Your task to perform on an android device: remove spam from my inbox in the gmail app Image 0: 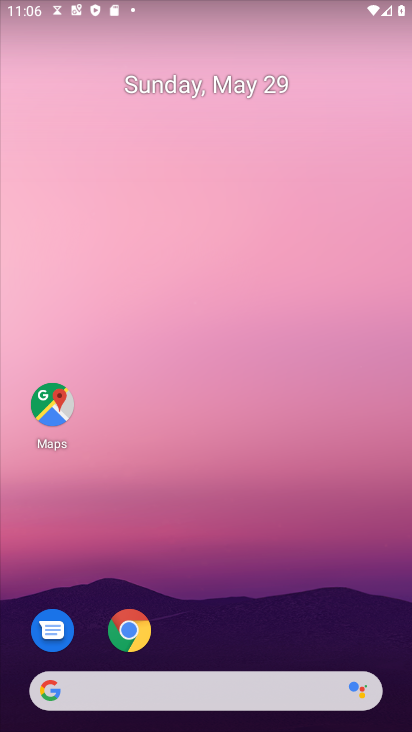
Step 0: drag from (282, 577) to (329, 142)
Your task to perform on an android device: remove spam from my inbox in the gmail app Image 1: 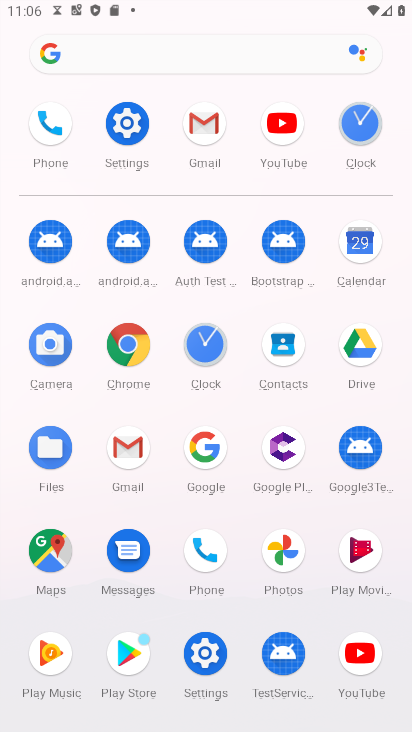
Step 1: click (200, 123)
Your task to perform on an android device: remove spam from my inbox in the gmail app Image 2: 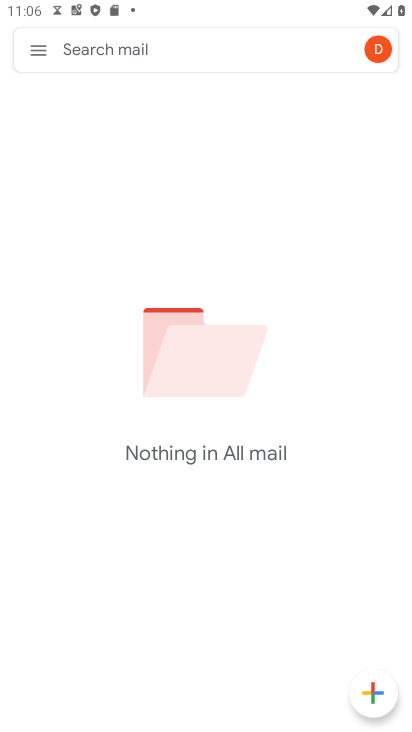
Step 2: click (38, 41)
Your task to perform on an android device: remove spam from my inbox in the gmail app Image 3: 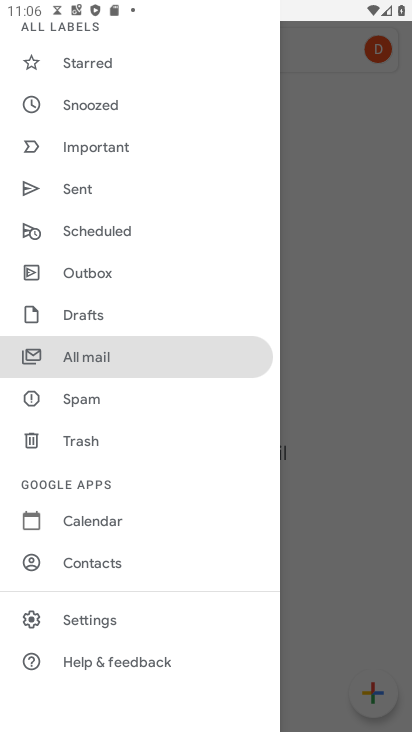
Step 3: drag from (132, 156) to (128, 558)
Your task to perform on an android device: remove spam from my inbox in the gmail app Image 4: 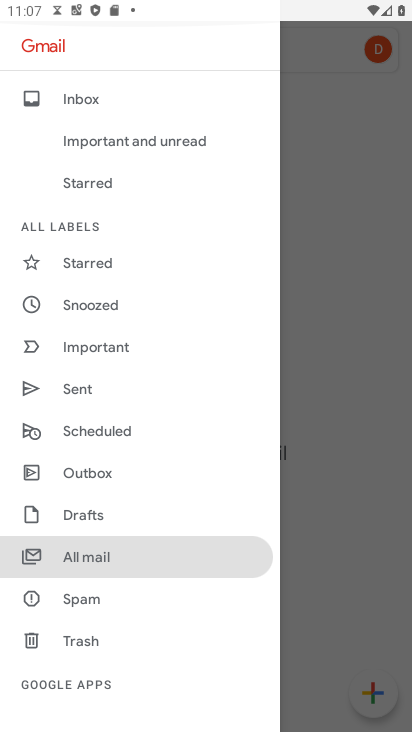
Step 4: drag from (137, 555) to (182, 75)
Your task to perform on an android device: remove spam from my inbox in the gmail app Image 5: 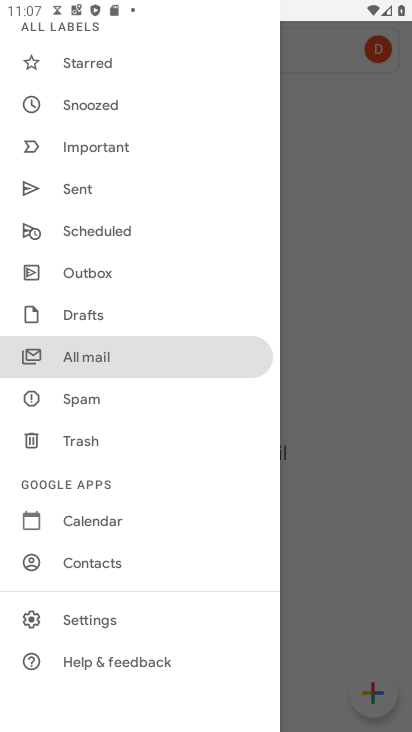
Step 5: click (113, 397)
Your task to perform on an android device: remove spam from my inbox in the gmail app Image 6: 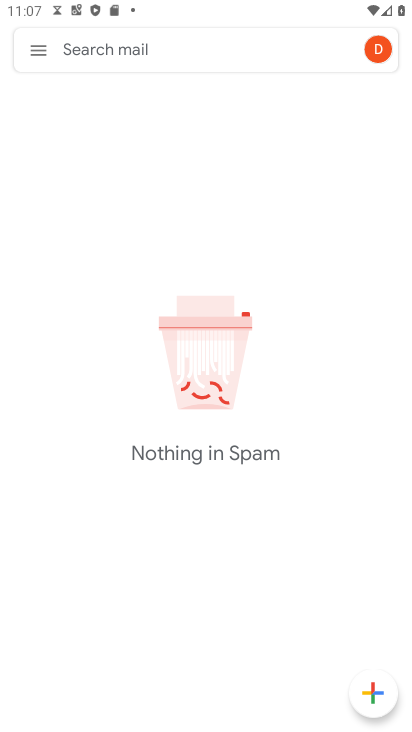
Step 6: task complete